Your task to perform on an android device: turn on data saver in the chrome app Image 0: 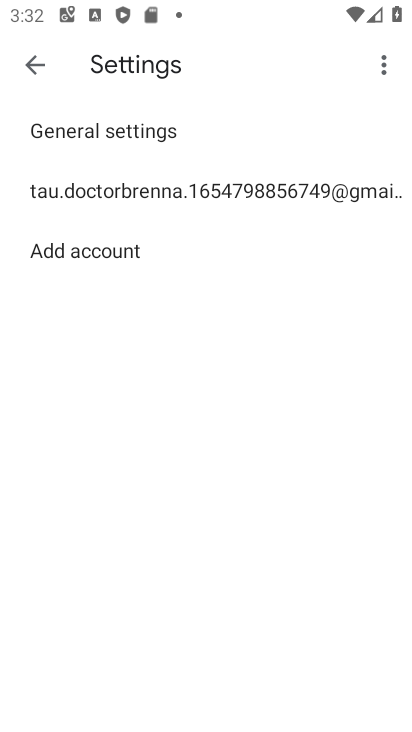
Step 0: press back button
Your task to perform on an android device: turn on data saver in the chrome app Image 1: 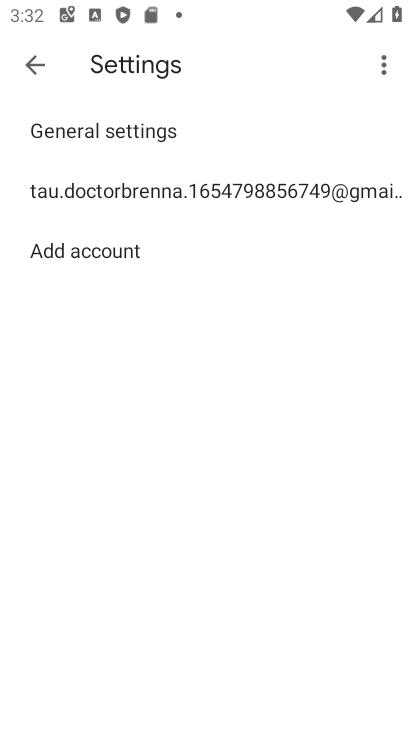
Step 1: press back button
Your task to perform on an android device: turn on data saver in the chrome app Image 2: 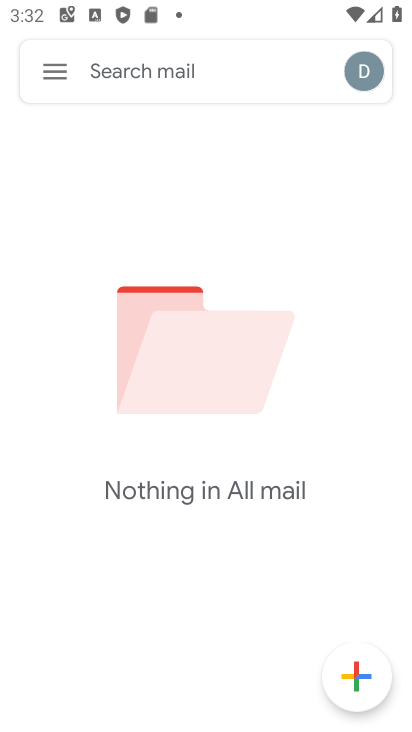
Step 2: press back button
Your task to perform on an android device: turn on data saver in the chrome app Image 3: 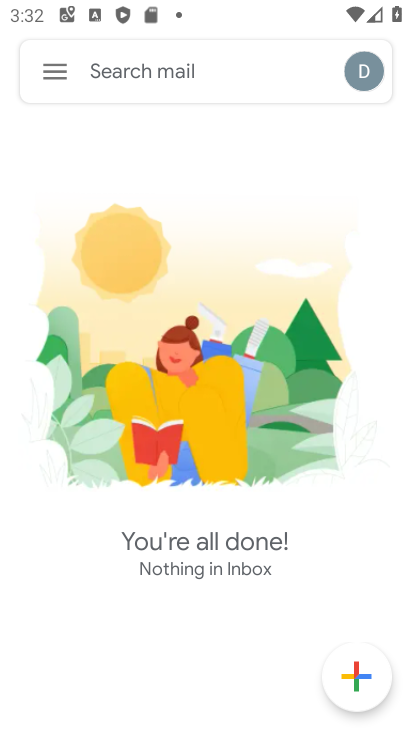
Step 3: press back button
Your task to perform on an android device: turn on data saver in the chrome app Image 4: 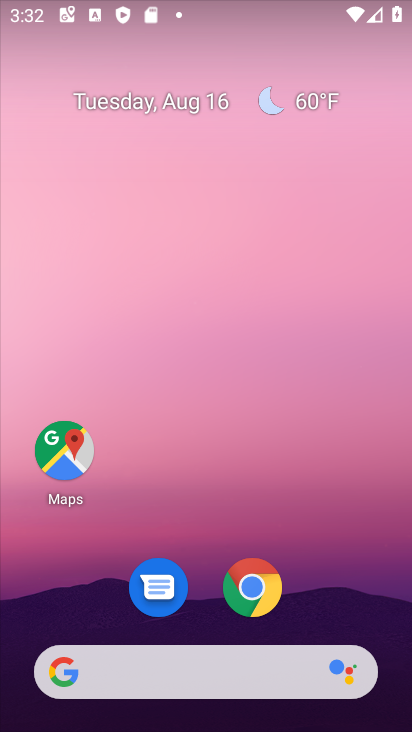
Step 4: click (256, 593)
Your task to perform on an android device: turn on data saver in the chrome app Image 5: 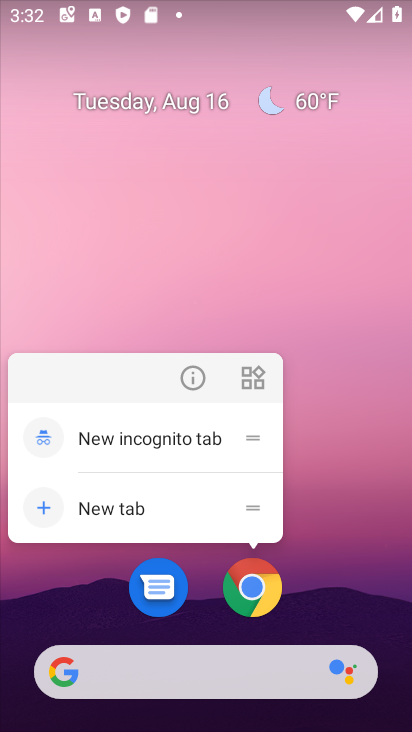
Step 5: click (261, 581)
Your task to perform on an android device: turn on data saver in the chrome app Image 6: 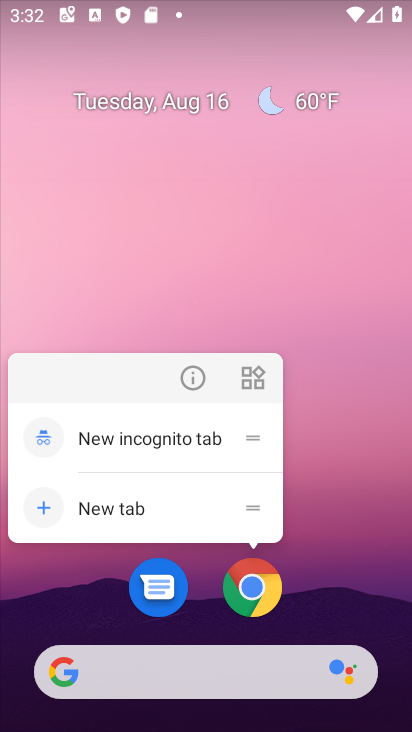
Step 6: click (261, 581)
Your task to perform on an android device: turn on data saver in the chrome app Image 7: 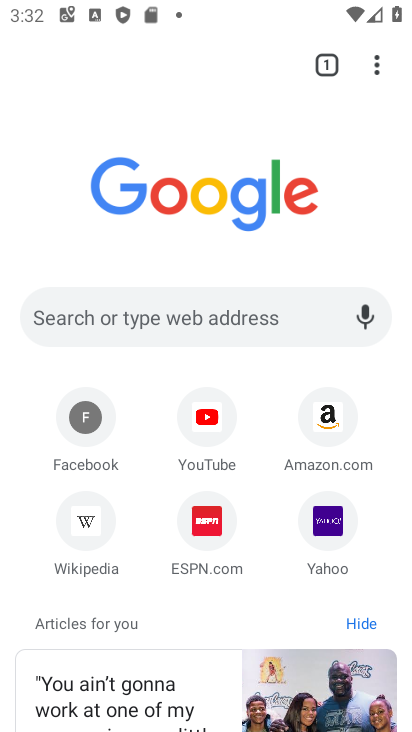
Step 7: drag from (373, 57) to (157, 538)
Your task to perform on an android device: turn on data saver in the chrome app Image 8: 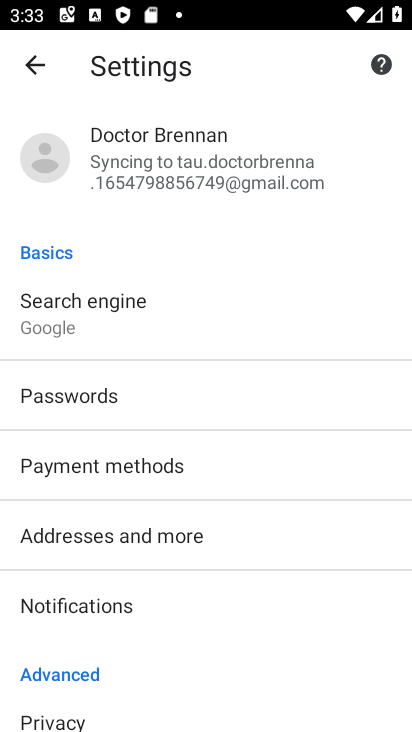
Step 8: drag from (182, 653) to (261, 91)
Your task to perform on an android device: turn on data saver in the chrome app Image 9: 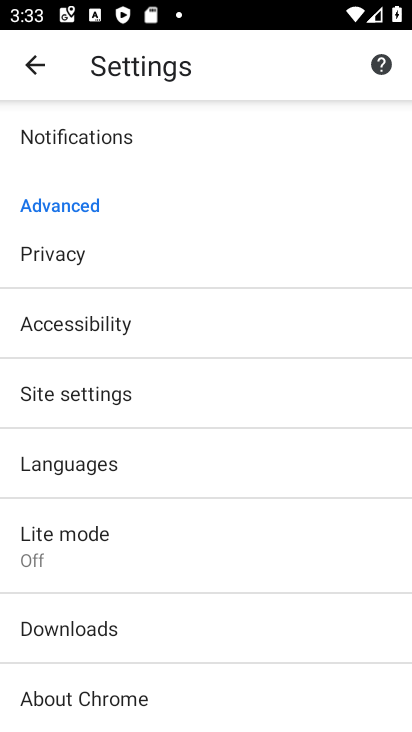
Step 9: click (80, 557)
Your task to perform on an android device: turn on data saver in the chrome app Image 10: 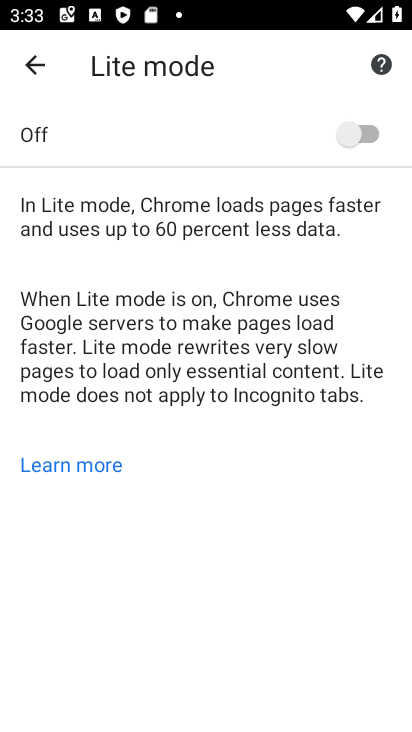
Step 10: click (358, 125)
Your task to perform on an android device: turn on data saver in the chrome app Image 11: 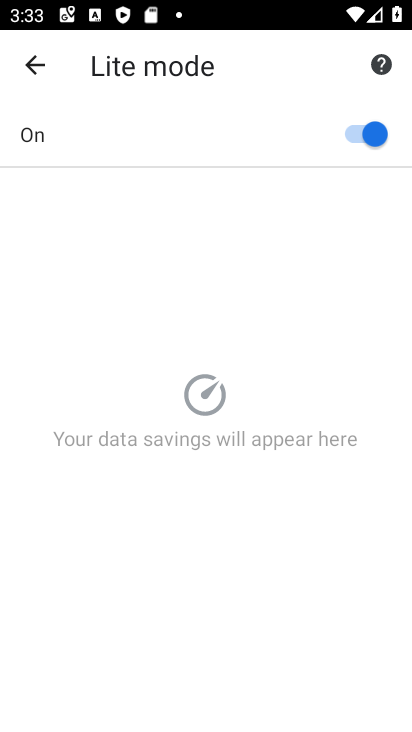
Step 11: task complete